Your task to perform on an android device: Open Google Maps Image 0: 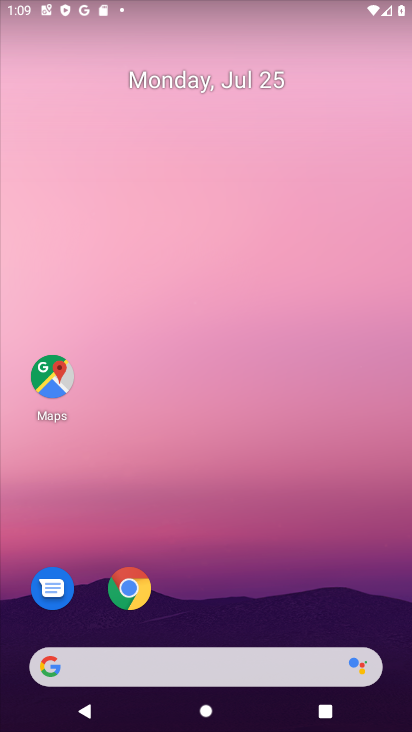
Step 0: click (50, 395)
Your task to perform on an android device: Open Google Maps Image 1: 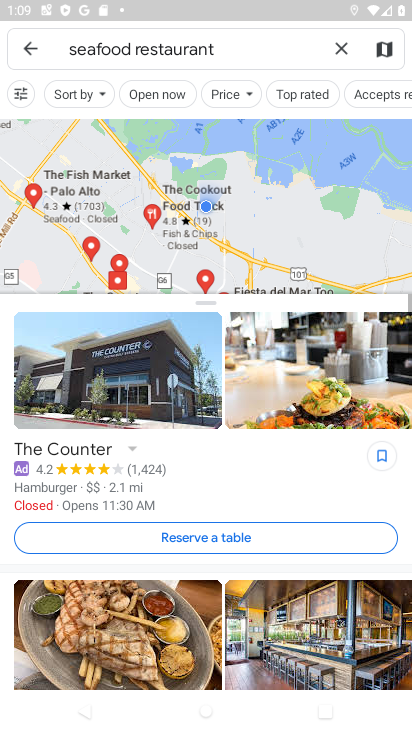
Step 1: task complete